Your task to perform on an android device: toggle location history Image 0: 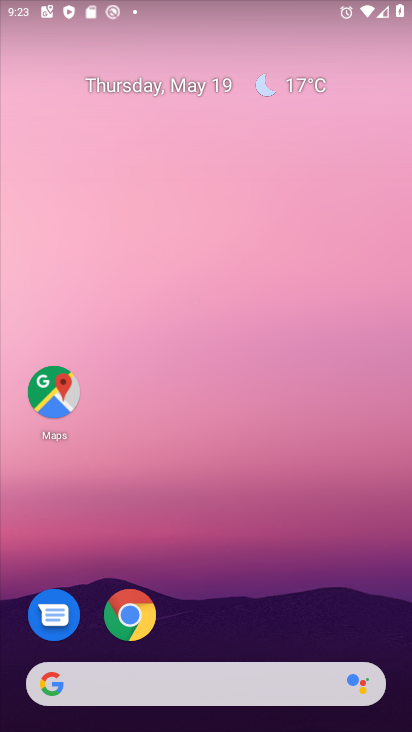
Step 0: press home button
Your task to perform on an android device: toggle location history Image 1: 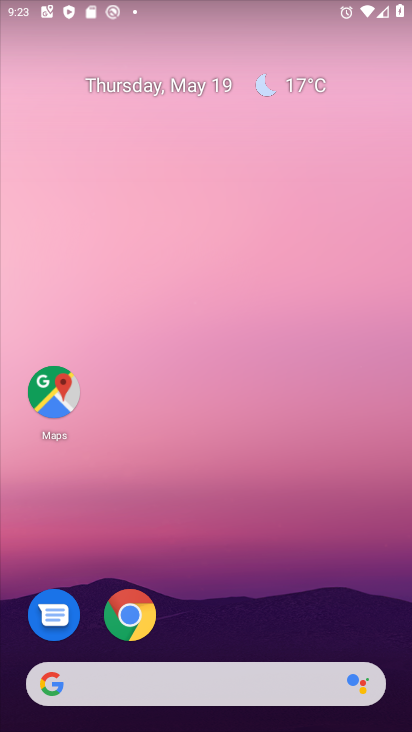
Step 1: click (36, 404)
Your task to perform on an android device: toggle location history Image 2: 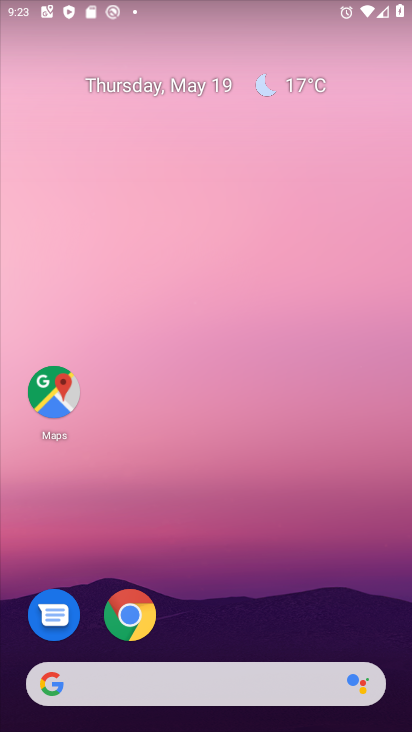
Step 2: click (36, 404)
Your task to perform on an android device: toggle location history Image 3: 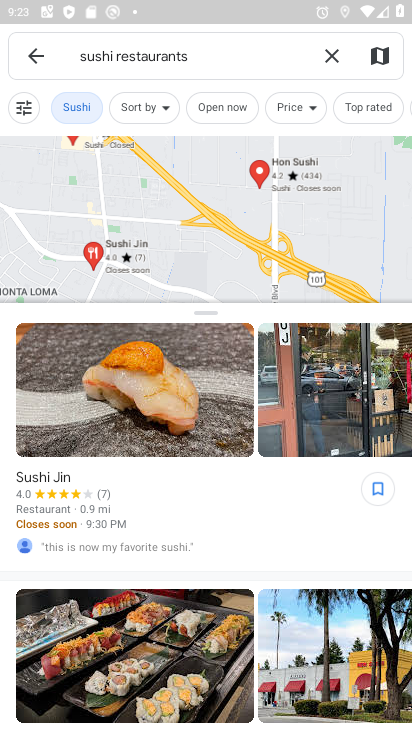
Step 3: click (27, 51)
Your task to perform on an android device: toggle location history Image 4: 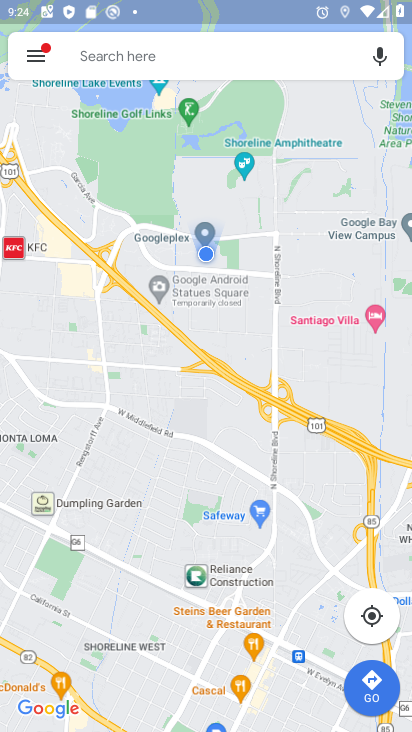
Step 4: click (27, 51)
Your task to perform on an android device: toggle location history Image 5: 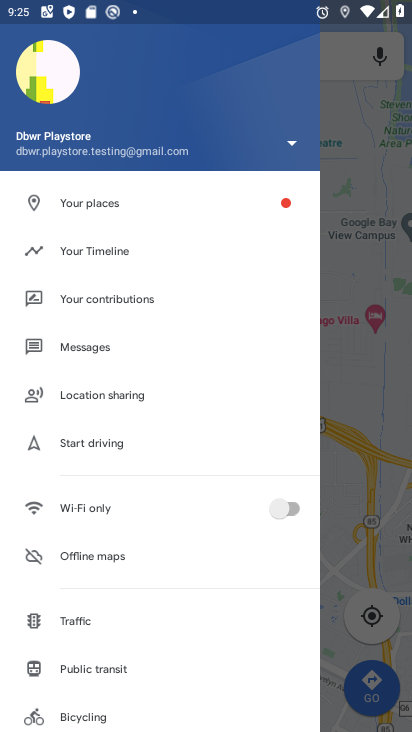
Step 5: drag from (101, 607) to (100, 344)
Your task to perform on an android device: toggle location history Image 6: 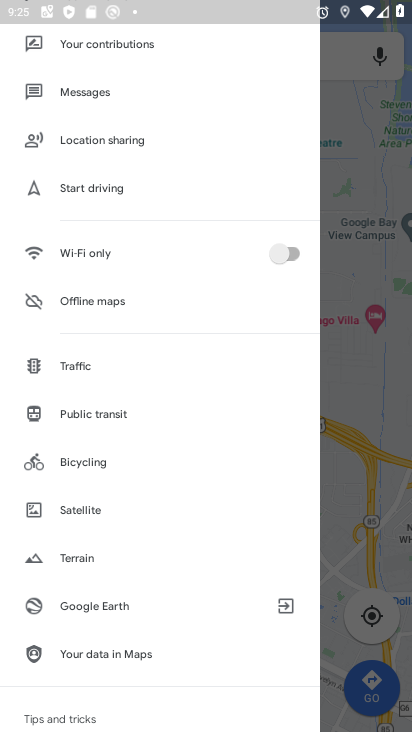
Step 6: drag from (100, 306) to (170, 467)
Your task to perform on an android device: toggle location history Image 7: 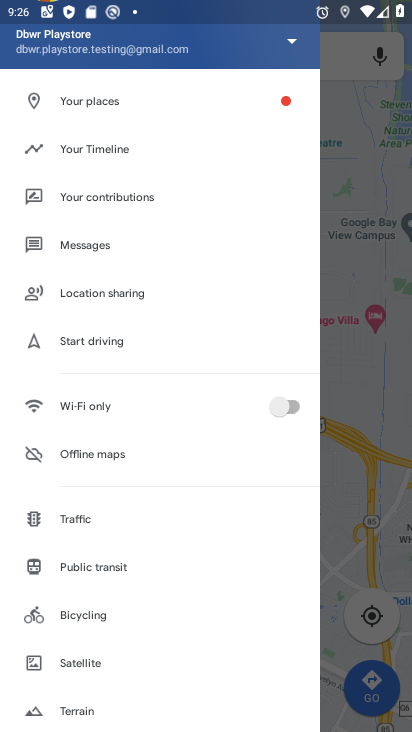
Step 7: click (108, 140)
Your task to perform on an android device: toggle location history Image 8: 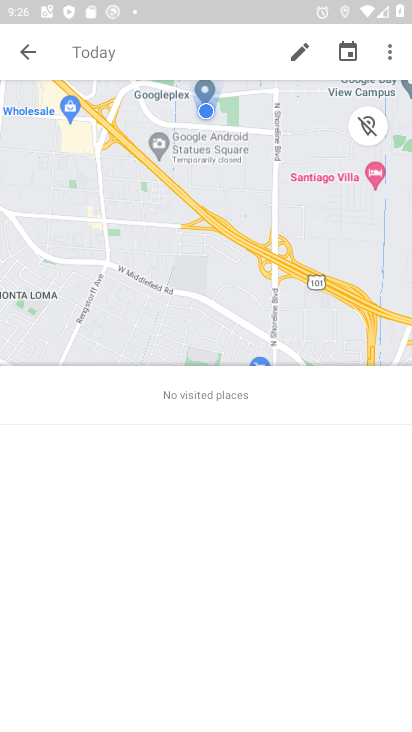
Step 8: drag from (385, 48) to (281, 339)
Your task to perform on an android device: toggle location history Image 9: 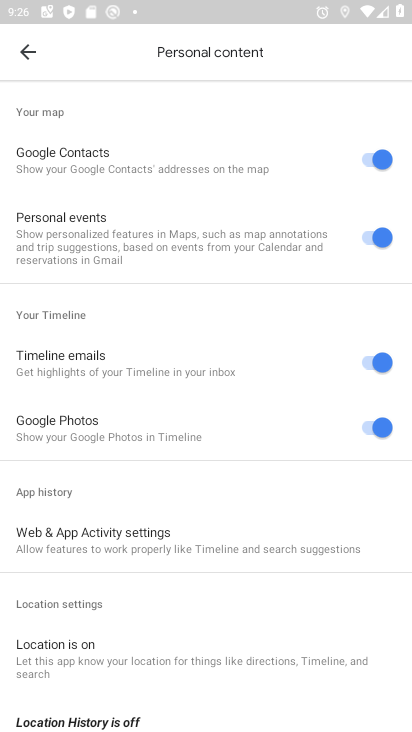
Step 9: drag from (207, 622) to (130, 349)
Your task to perform on an android device: toggle location history Image 10: 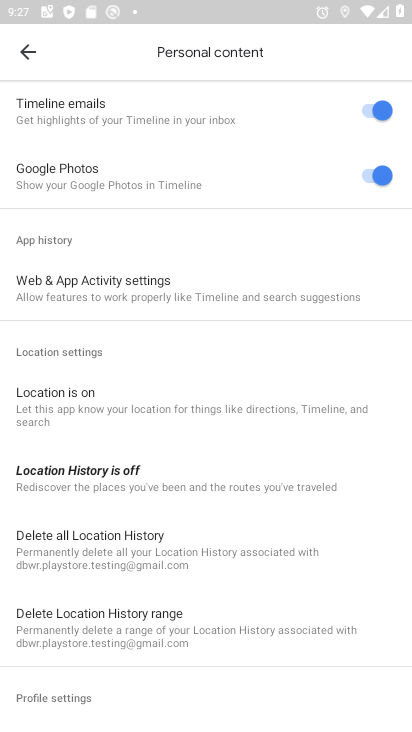
Step 10: click (134, 478)
Your task to perform on an android device: toggle location history Image 11: 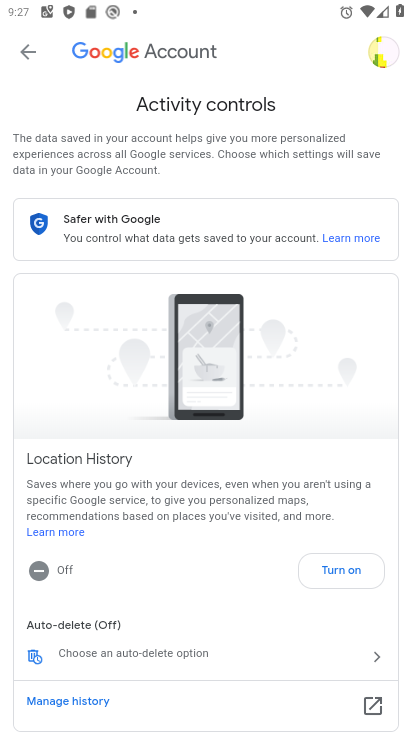
Step 11: click (345, 578)
Your task to perform on an android device: toggle location history Image 12: 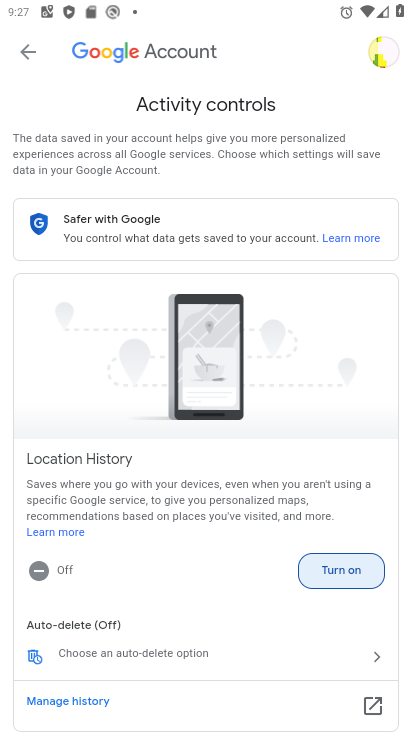
Step 12: click (345, 578)
Your task to perform on an android device: toggle location history Image 13: 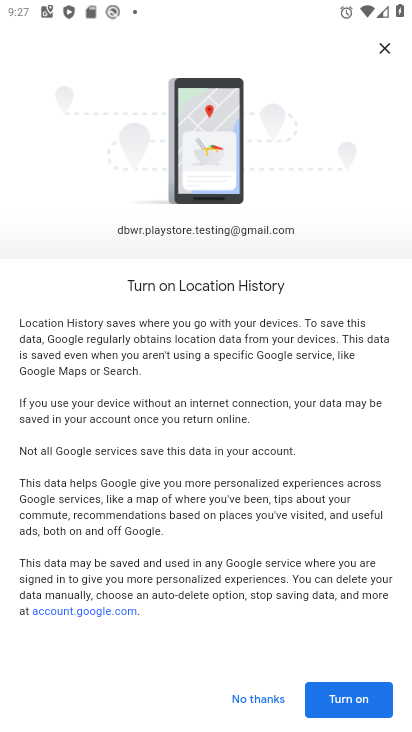
Step 13: click (348, 700)
Your task to perform on an android device: toggle location history Image 14: 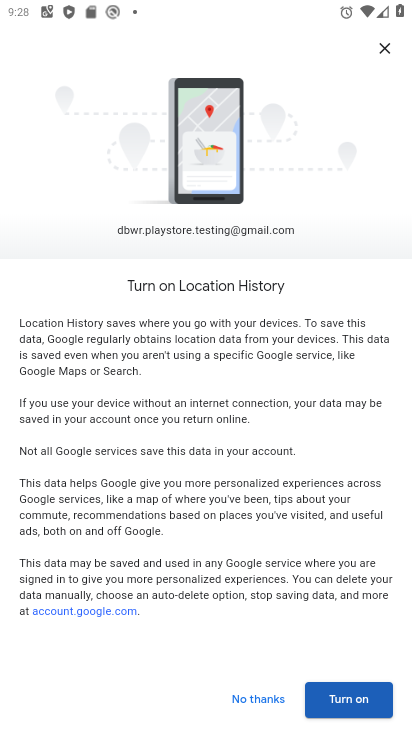
Step 14: click (343, 699)
Your task to perform on an android device: toggle location history Image 15: 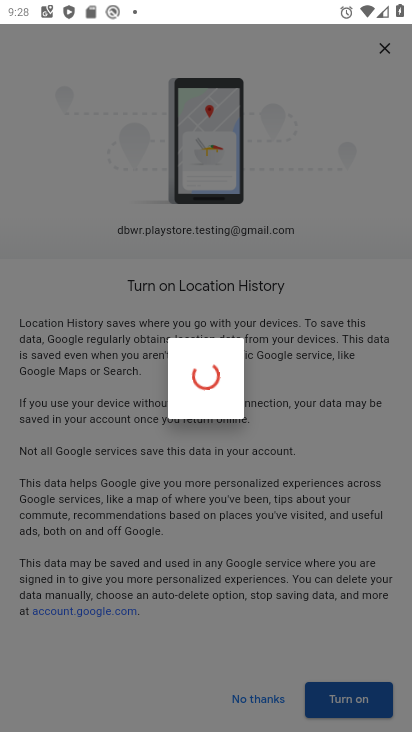
Step 15: drag from (336, 633) to (320, 540)
Your task to perform on an android device: toggle location history Image 16: 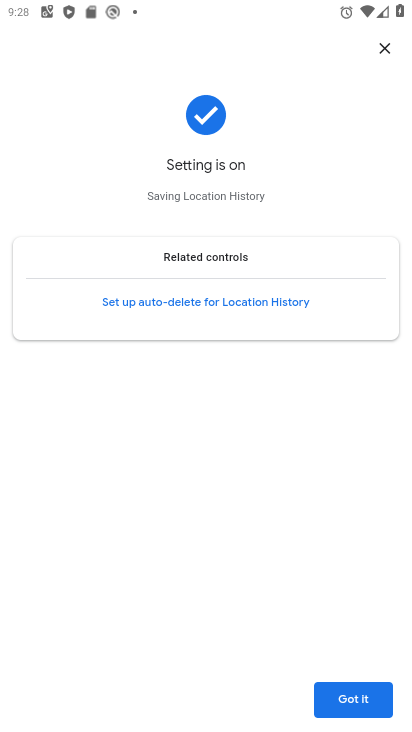
Step 16: click (356, 704)
Your task to perform on an android device: toggle location history Image 17: 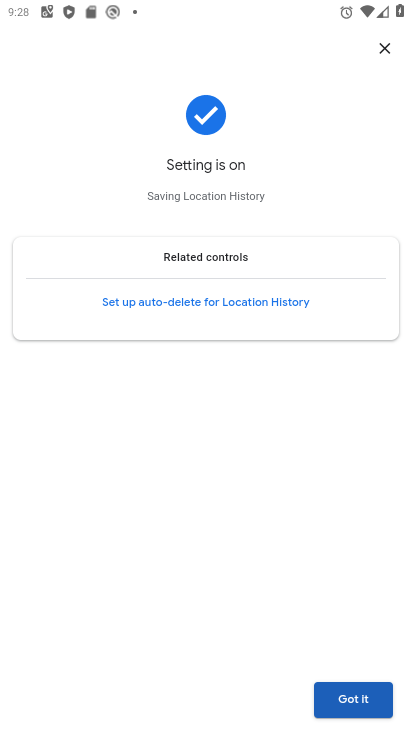
Step 17: click (380, 703)
Your task to perform on an android device: toggle location history Image 18: 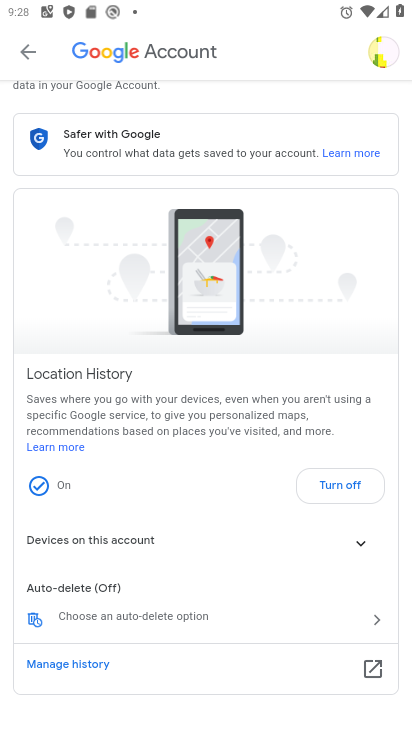
Step 18: task complete